Your task to perform on an android device: Go to sound settings Image 0: 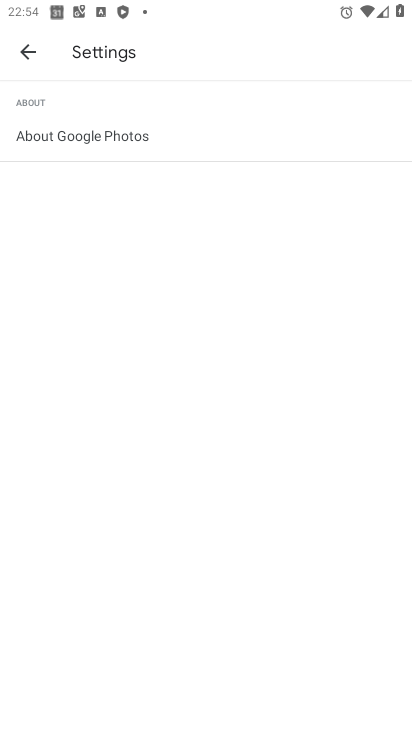
Step 0: press home button
Your task to perform on an android device: Go to sound settings Image 1: 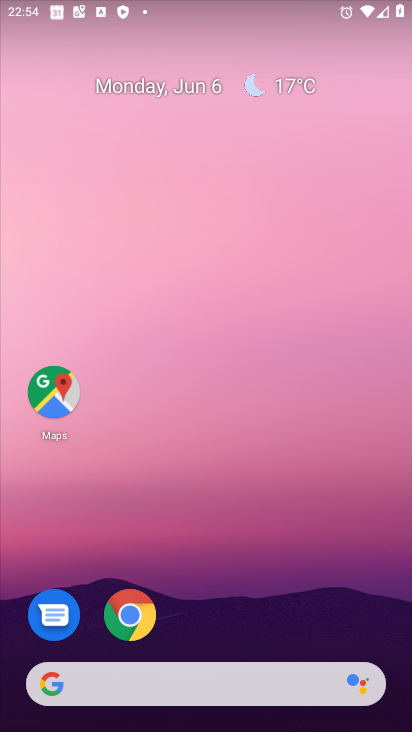
Step 1: drag from (395, 447) to (355, 115)
Your task to perform on an android device: Go to sound settings Image 2: 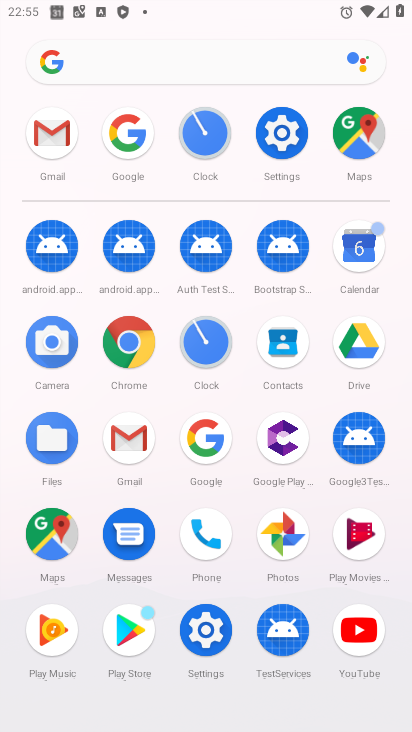
Step 2: click (209, 605)
Your task to perform on an android device: Go to sound settings Image 3: 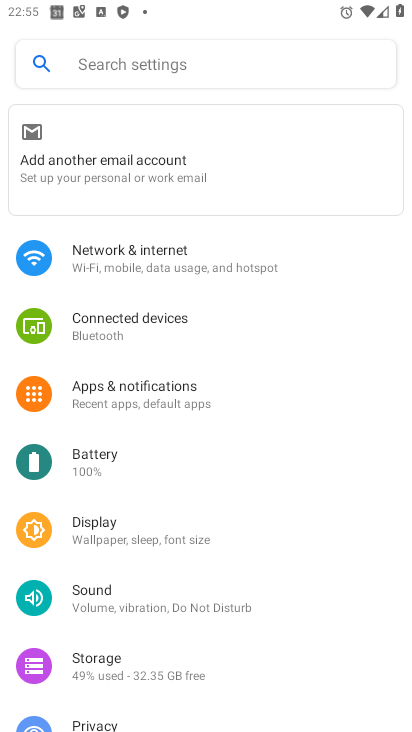
Step 3: click (112, 584)
Your task to perform on an android device: Go to sound settings Image 4: 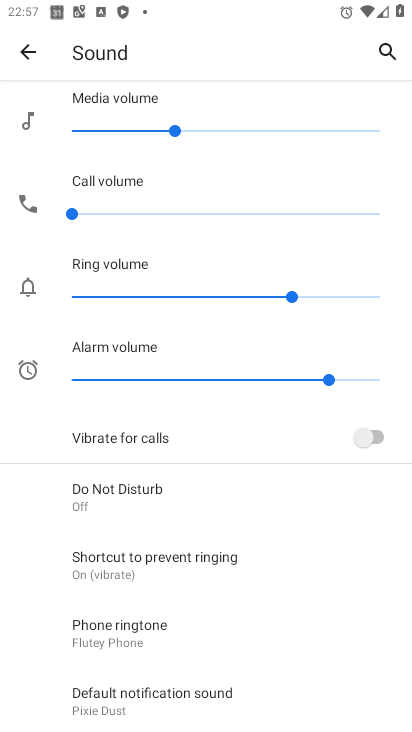
Step 4: task complete